Your task to perform on an android device: change the clock display to analog Image 0: 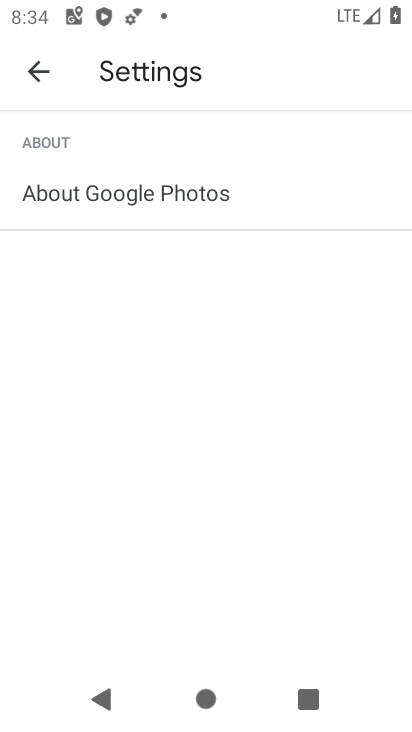
Step 0: press home button
Your task to perform on an android device: change the clock display to analog Image 1: 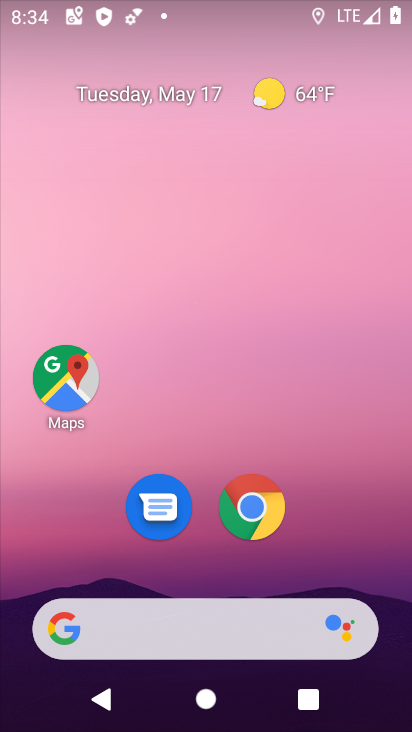
Step 1: drag from (338, 560) to (299, 98)
Your task to perform on an android device: change the clock display to analog Image 2: 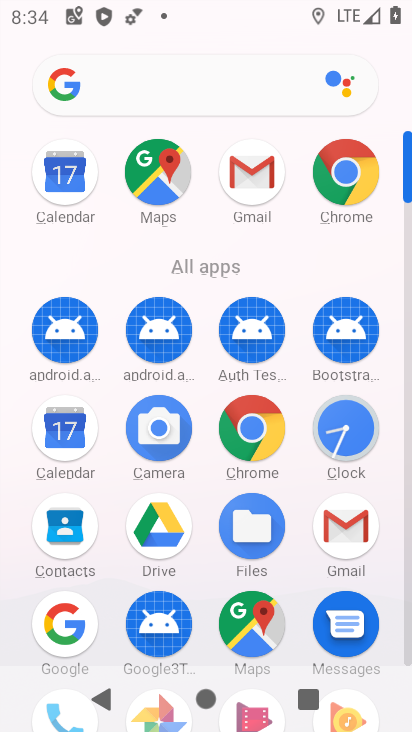
Step 2: click (346, 425)
Your task to perform on an android device: change the clock display to analog Image 3: 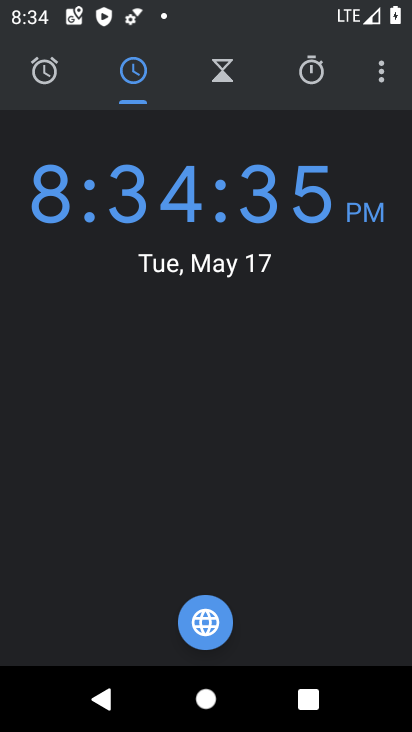
Step 3: click (382, 71)
Your task to perform on an android device: change the clock display to analog Image 4: 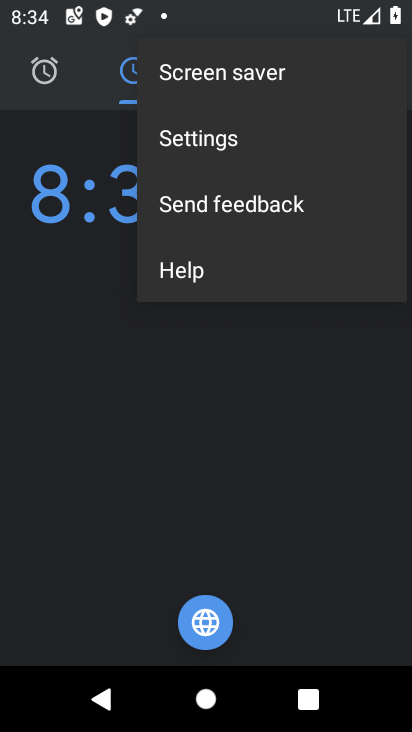
Step 4: click (206, 138)
Your task to perform on an android device: change the clock display to analog Image 5: 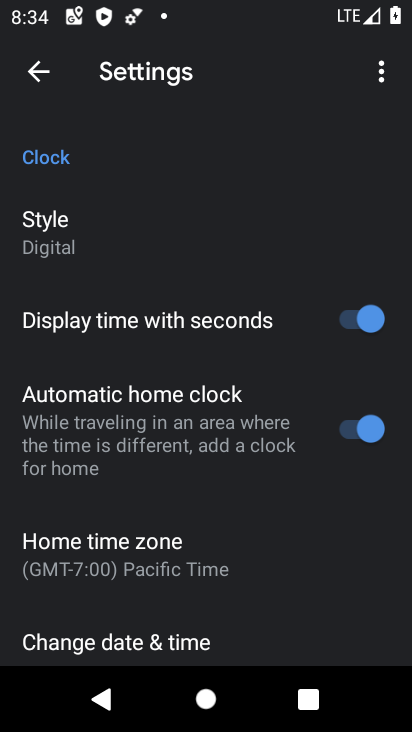
Step 5: click (65, 242)
Your task to perform on an android device: change the clock display to analog Image 6: 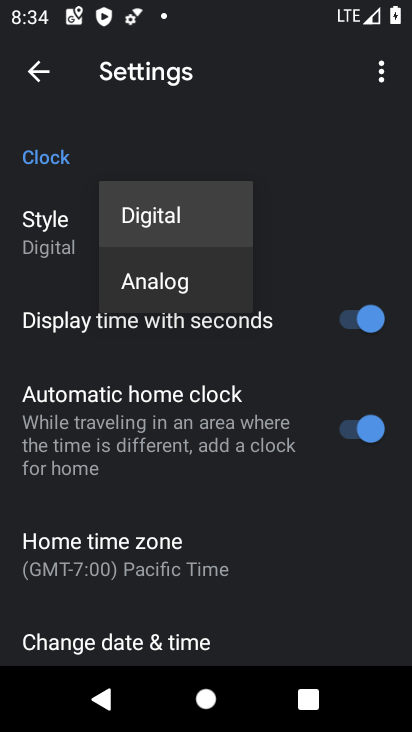
Step 6: click (157, 288)
Your task to perform on an android device: change the clock display to analog Image 7: 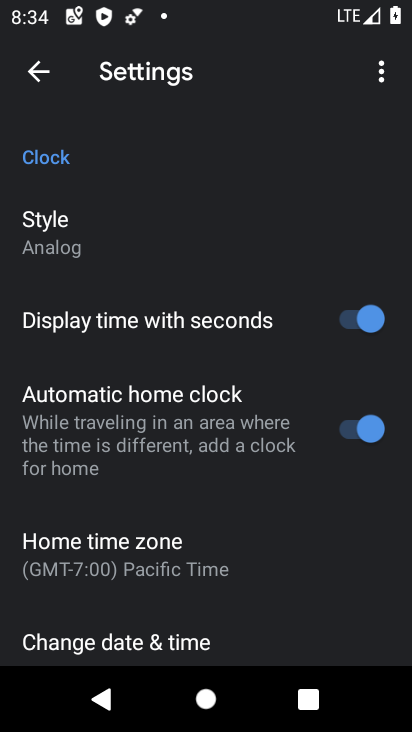
Step 7: task complete